Your task to perform on an android device: change the clock display to digital Image 0: 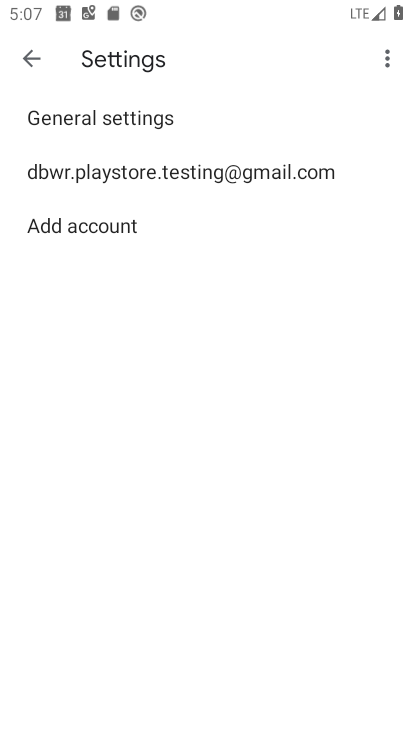
Step 0: press home button
Your task to perform on an android device: change the clock display to digital Image 1: 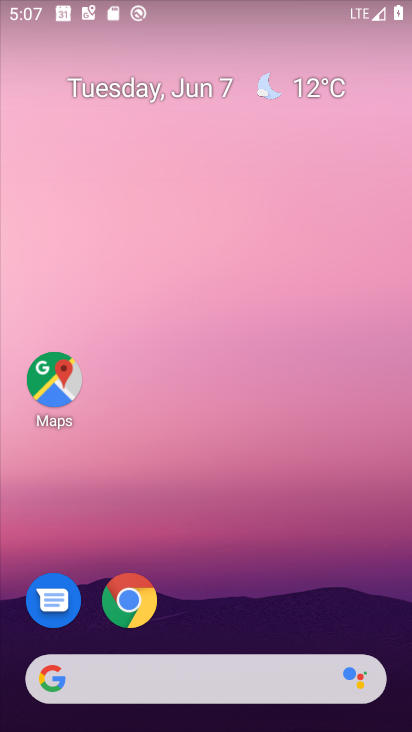
Step 1: drag from (322, 549) to (295, 114)
Your task to perform on an android device: change the clock display to digital Image 2: 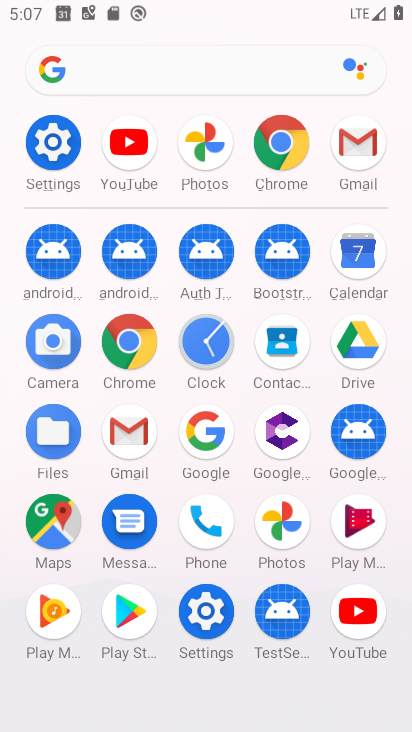
Step 2: click (221, 330)
Your task to perform on an android device: change the clock display to digital Image 3: 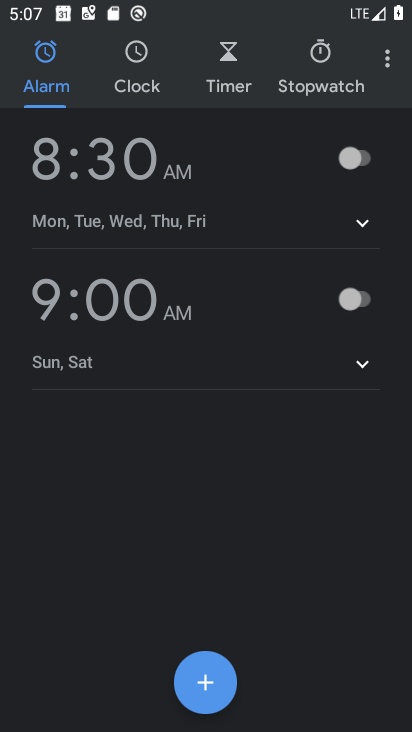
Step 3: click (381, 55)
Your task to perform on an android device: change the clock display to digital Image 4: 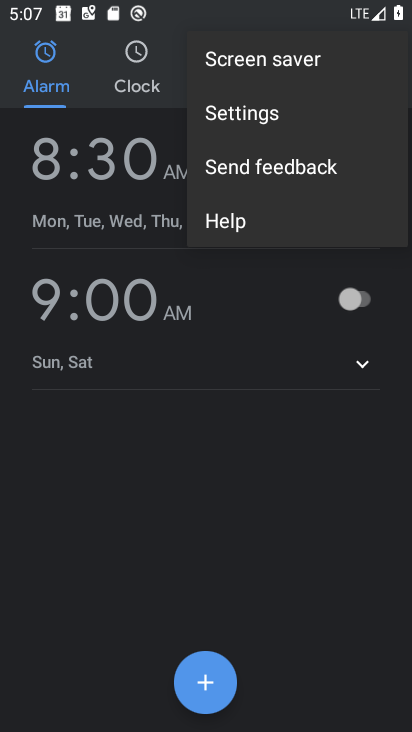
Step 4: click (258, 135)
Your task to perform on an android device: change the clock display to digital Image 5: 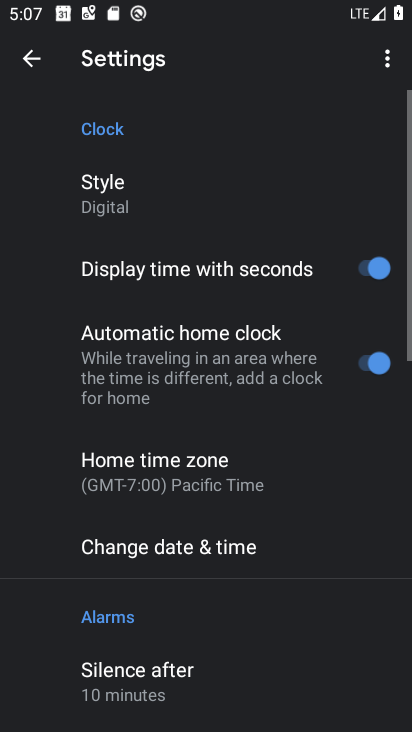
Step 5: click (155, 195)
Your task to perform on an android device: change the clock display to digital Image 6: 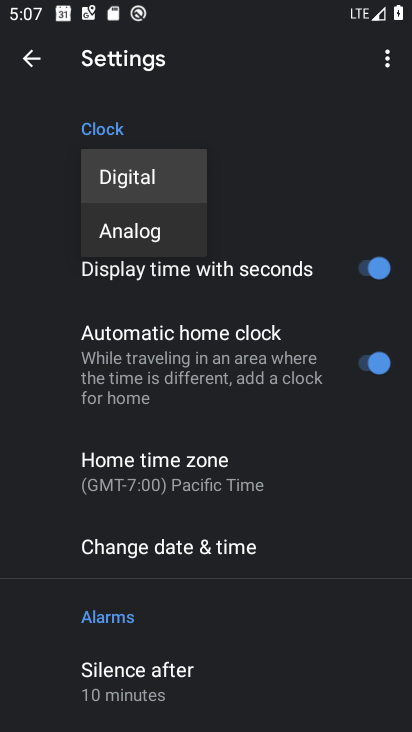
Step 6: task complete